Your task to perform on an android device: change the clock style Image 0: 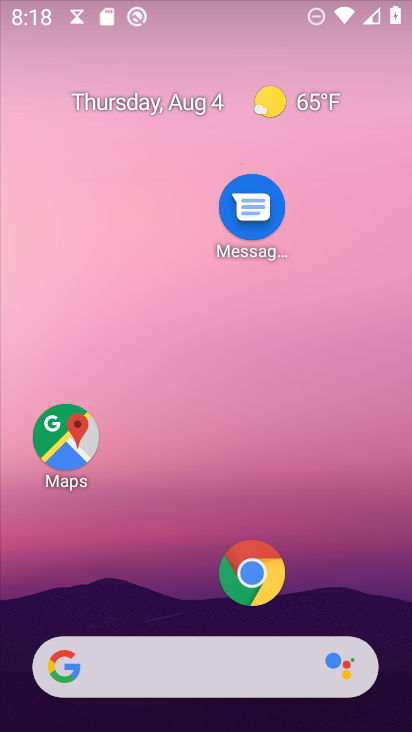
Step 0: press home button
Your task to perform on an android device: change the clock style Image 1: 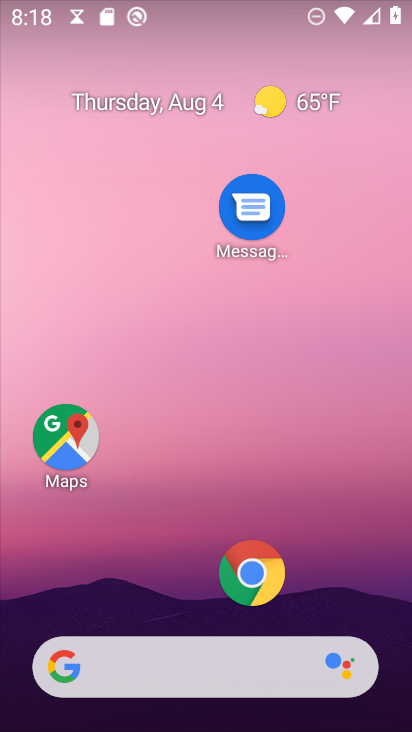
Step 1: drag from (164, 607) to (192, 92)
Your task to perform on an android device: change the clock style Image 2: 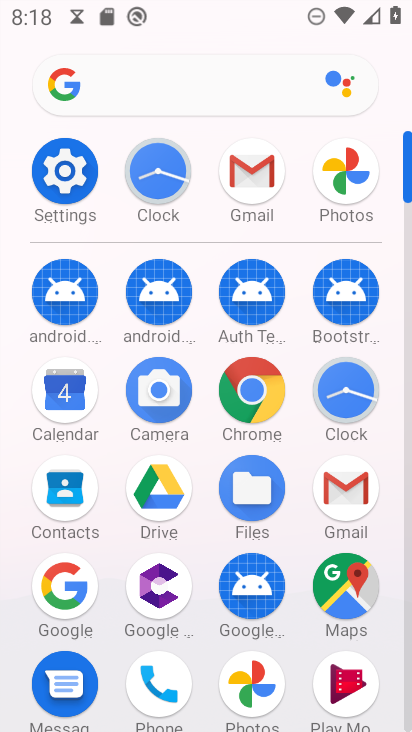
Step 2: click (151, 185)
Your task to perform on an android device: change the clock style Image 3: 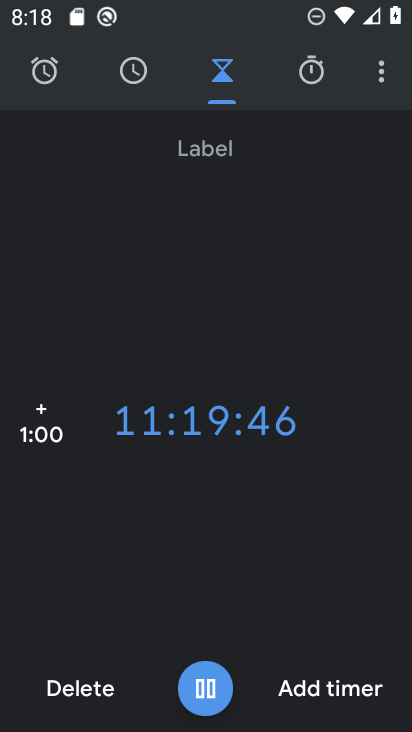
Step 3: click (383, 62)
Your task to perform on an android device: change the clock style Image 4: 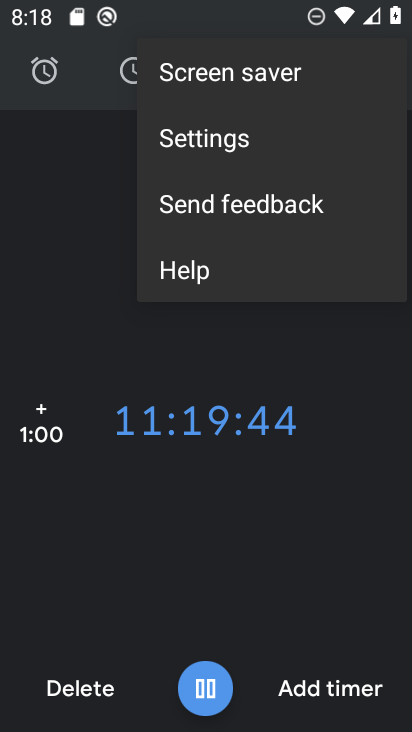
Step 4: click (183, 143)
Your task to perform on an android device: change the clock style Image 5: 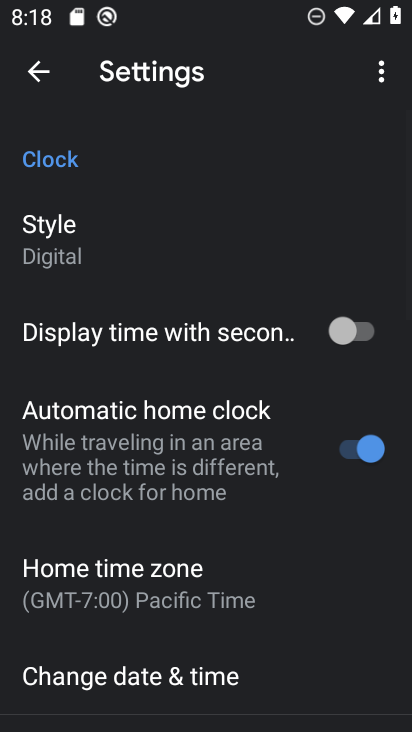
Step 5: click (50, 244)
Your task to perform on an android device: change the clock style Image 6: 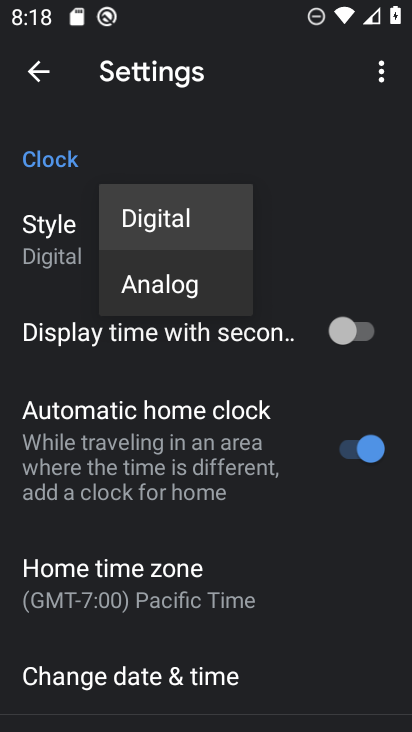
Step 6: click (155, 287)
Your task to perform on an android device: change the clock style Image 7: 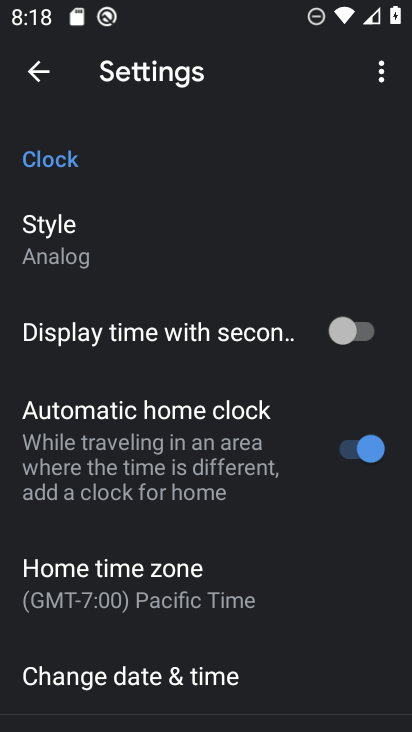
Step 7: task complete